Your task to perform on an android device: manage bookmarks in the chrome app Image 0: 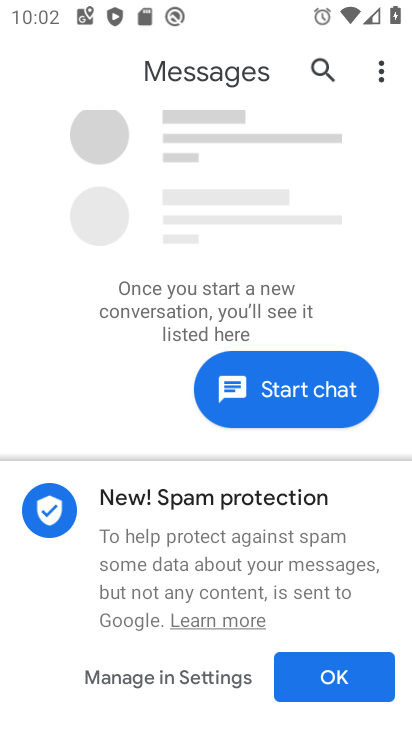
Step 0: press home button
Your task to perform on an android device: manage bookmarks in the chrome app Image 1: 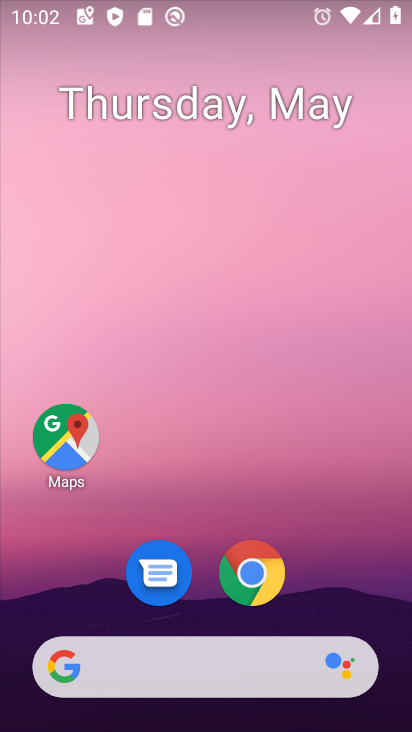
Step 1: click (230, 566)
Your task to perform on an android device: manage bookmarks in the chrome app Image 2: 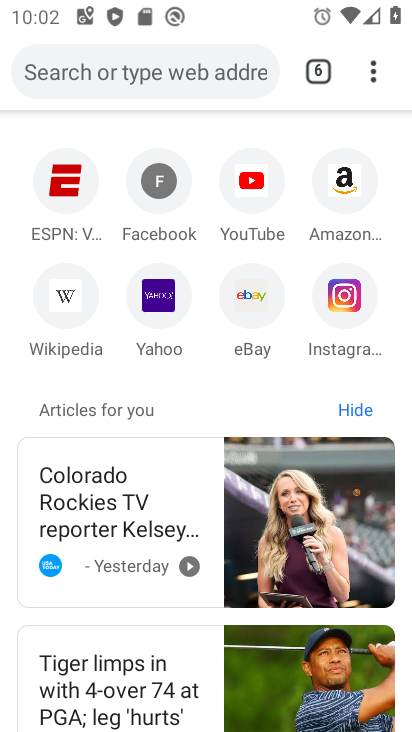
Step 2: click (369, 63)
Your task to perform on an android device: manage bookmarks in the chrome app Image 3: 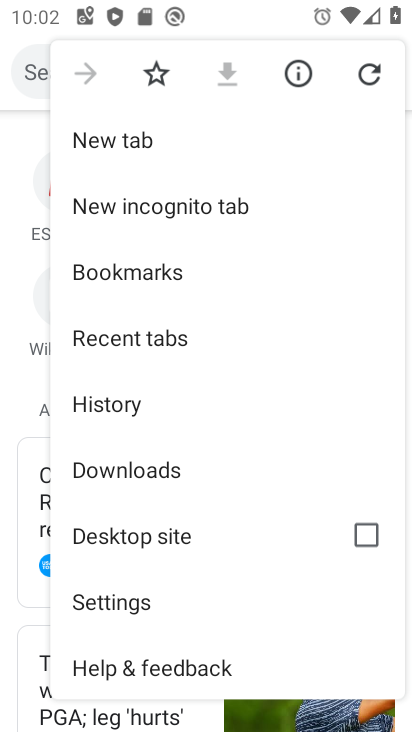
Step 3: click (201, 283)
Your task to perform on an android device: manage bookmarks in the chrome app Image 4: 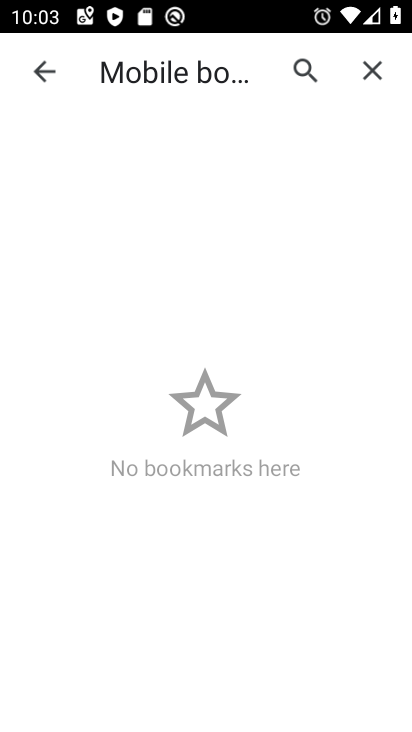
Step 4: task complete